Your task to perform on an android device: delete browsing data in the chrome app Image 0: 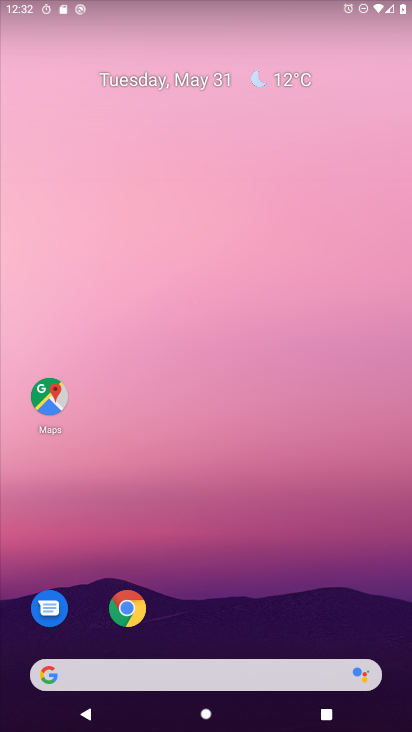
Step 0: click (128, 622)
Your task to perform on an android device: delete browsing data in the chrome app Image 1: 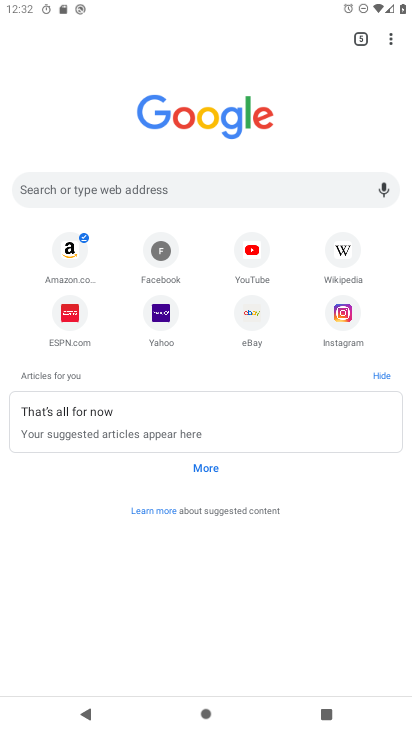
Step 1: click (391, 40)
Your task to perform on an android device: delete browsing data in the chrome app Image 2: 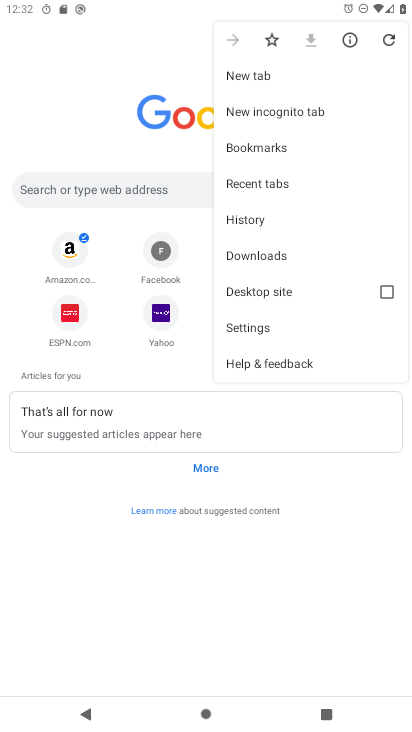
Step 2: click (240, 324)
Your task to perform on an android device: delete browsing data in the chrome app Image 3: 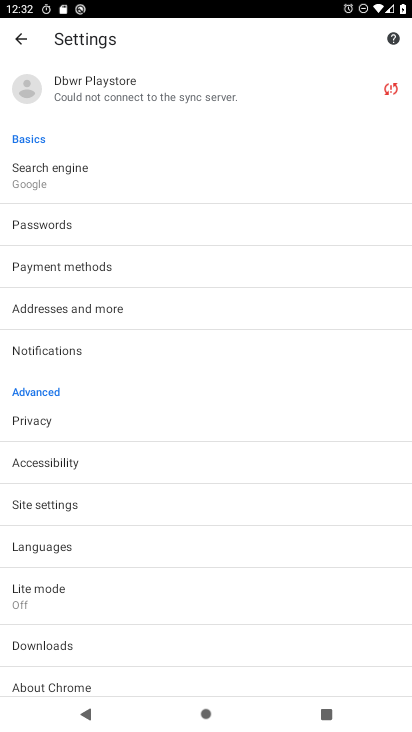
Step 3: click (33, 415)
Your task to perform on an android device: delete browsing data in the chrome app Image 4: 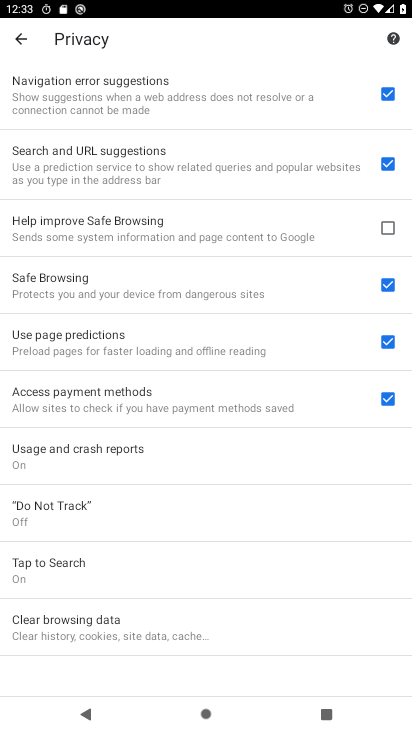
Step 4: click (68, 624)
Your task to perform on an android device: delete browsing data in the chrome app Image 5: 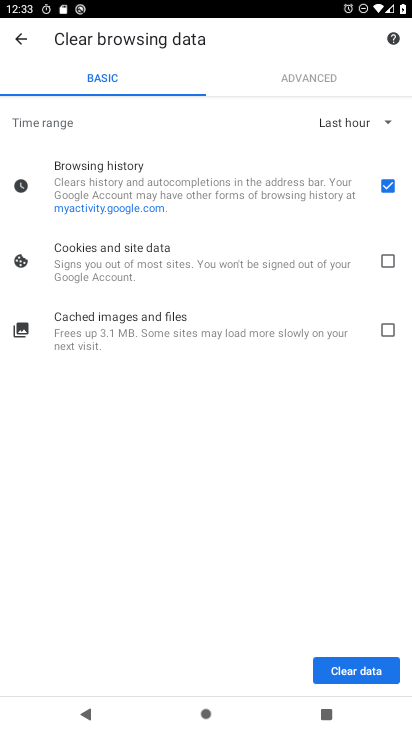
Step 5: click (373, 668)
Your task to perform on an android device: delete browsing data in the chrome app Image 6: 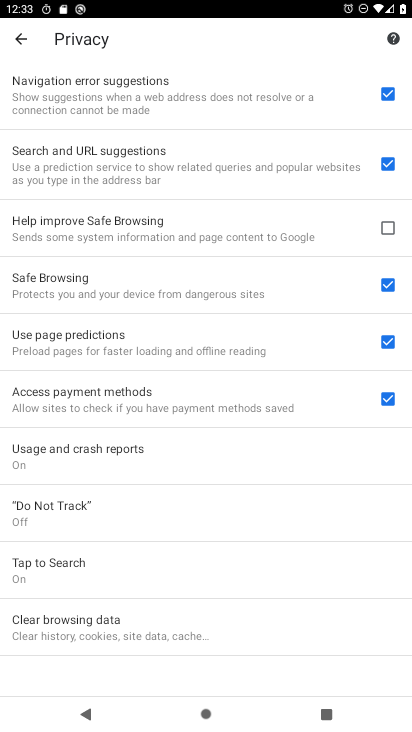
Step 6: task complete